Your task to perform on an android device: toggle priority inbox in the gmail app Image 0: 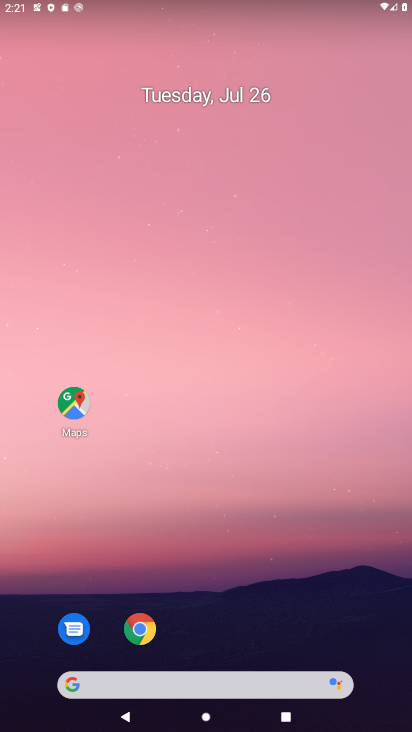
Step 0: drag from (221, 571) to (221, 294)
Your task to perform on an android device: toggle priority inbox in the gmail app Image 1: 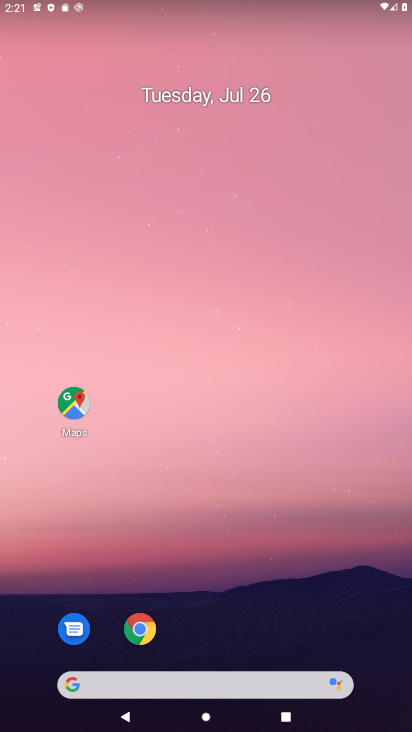
Step 1: drag from (216, 608) to (215, 194)
Your task to perform on an android device: toggle priority inbox in the gmail app Image 2: 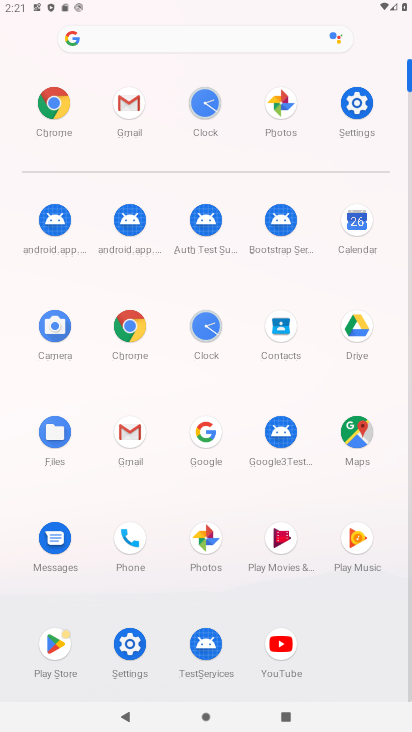
Step 2: click (132, 444)
Your task to perform on an android device: toggle priority inbox in the gmail app Image 3: 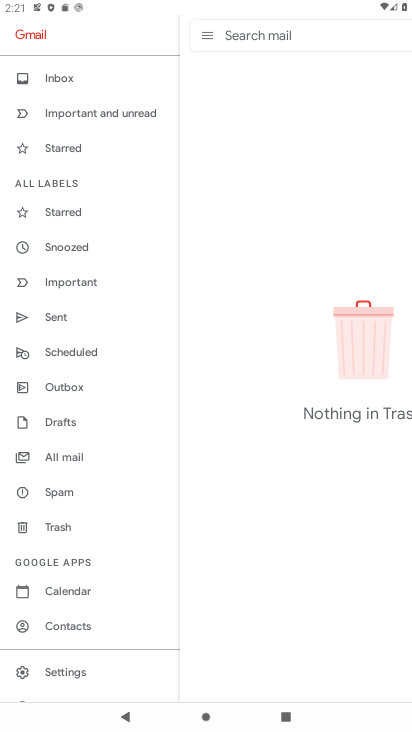
Step 3: click (72, 673)
Your task to perform on an android device: toggle priority inbox in the gmail app Image 4: 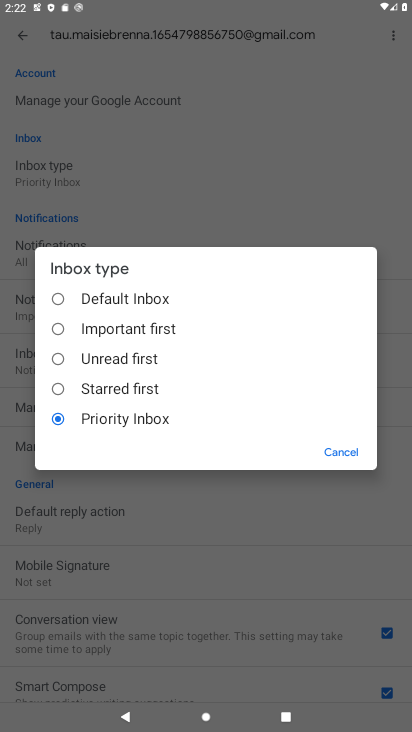
Step 4: click (98, 303)
Your task to perform on an android device: toggle priority inbox in the gmail app Image 5: 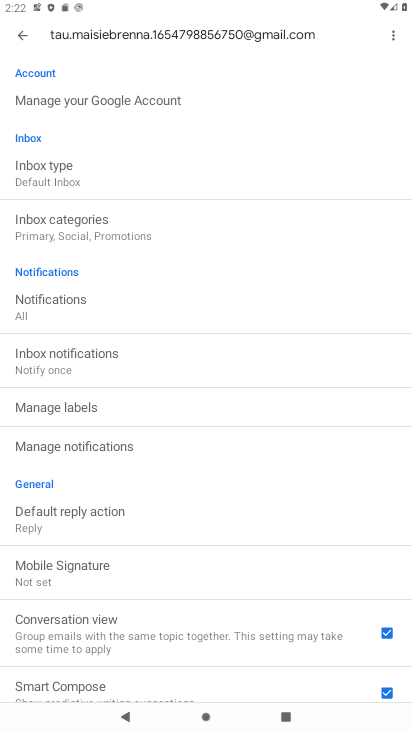
Step 5: task complete